Your task to perform on an android device: When is my next meeting? Image 0: 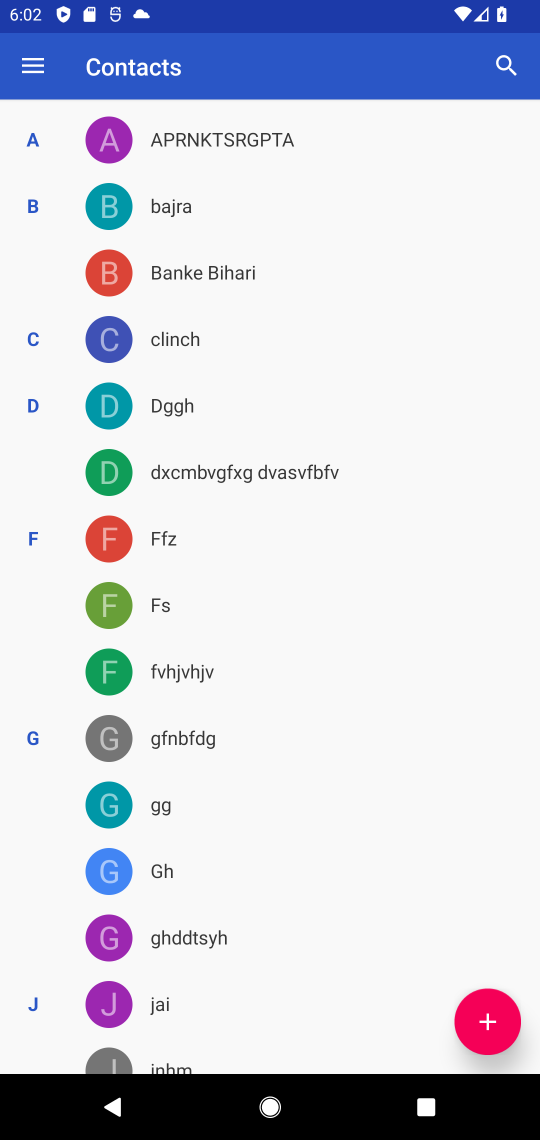
Step 0: press home button
Your task to perform on an android device: When is my next meeting? Image 1: 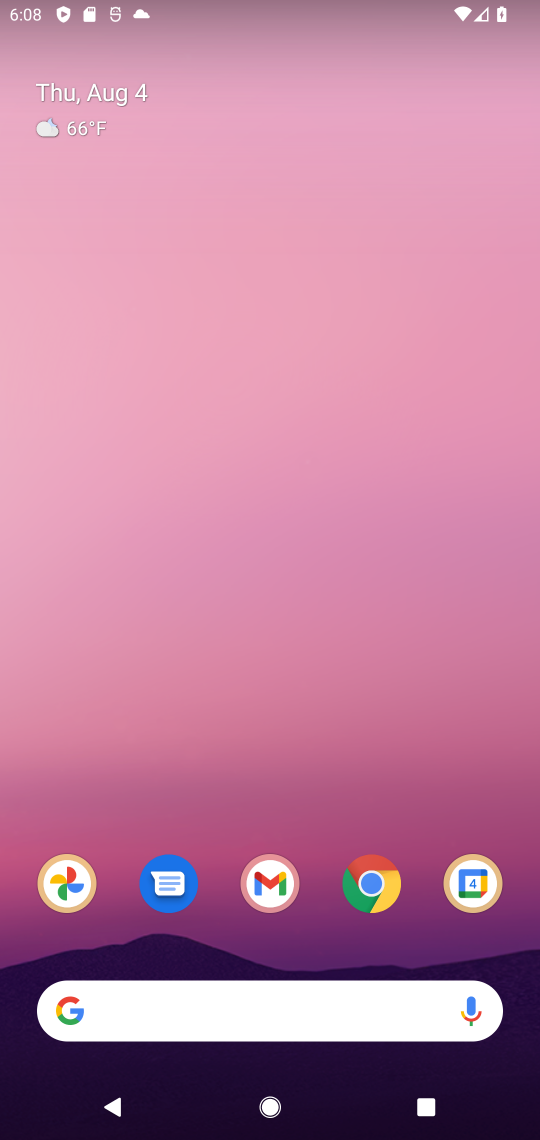
Step 1: drag from (166, 399) to (255, 105)
Your task to perform on an android device: When is my next meeting? Image 2: 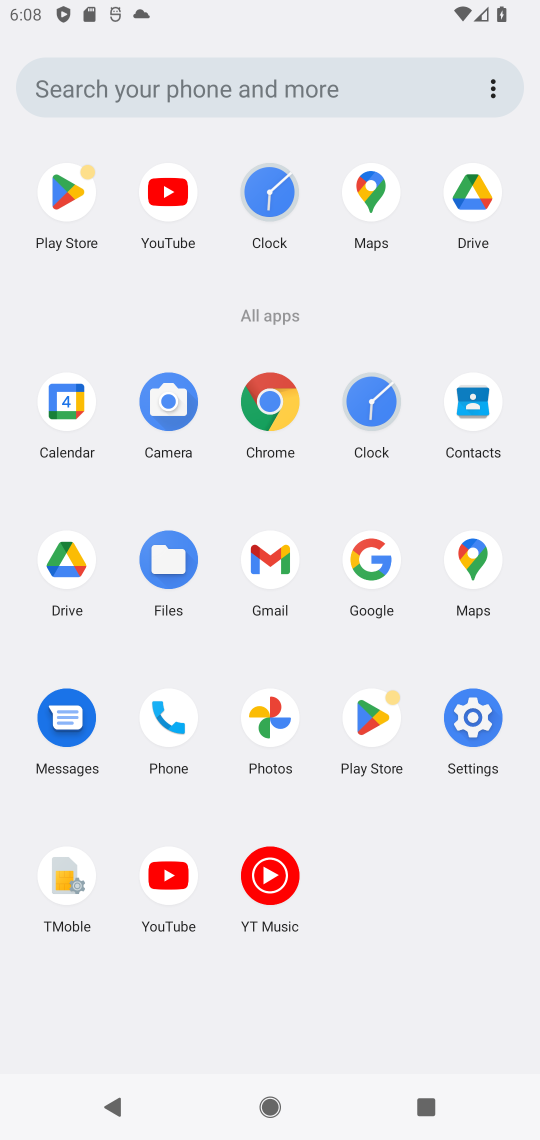
Step 2: click (55, 415)
Your task to perform on an android device: When is my next meeting? Image 3: 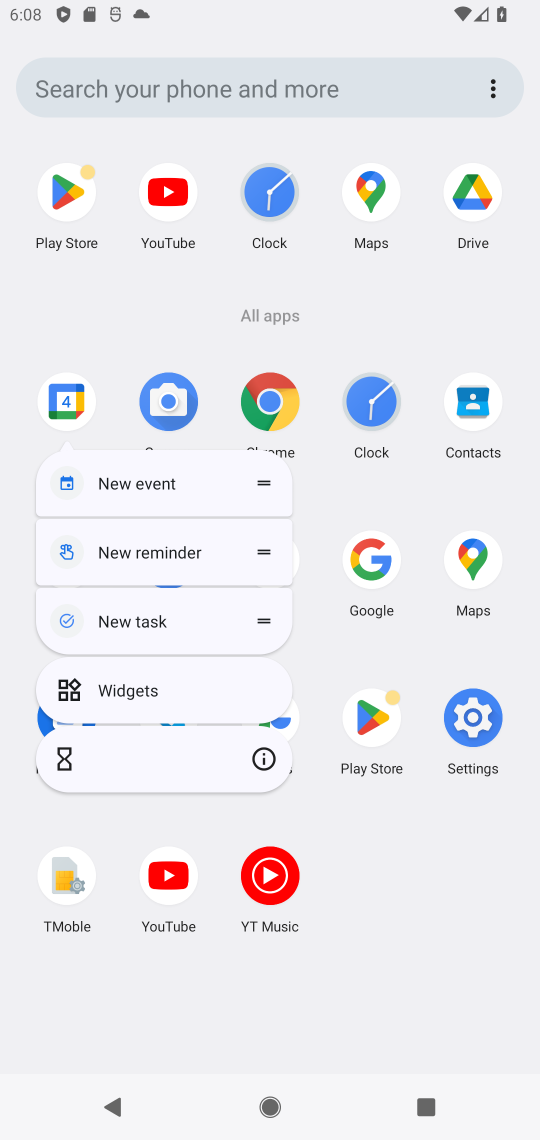
Step 3: click (55, 415)
Your task to perform on an android device: When is my next meeting? Image 4: 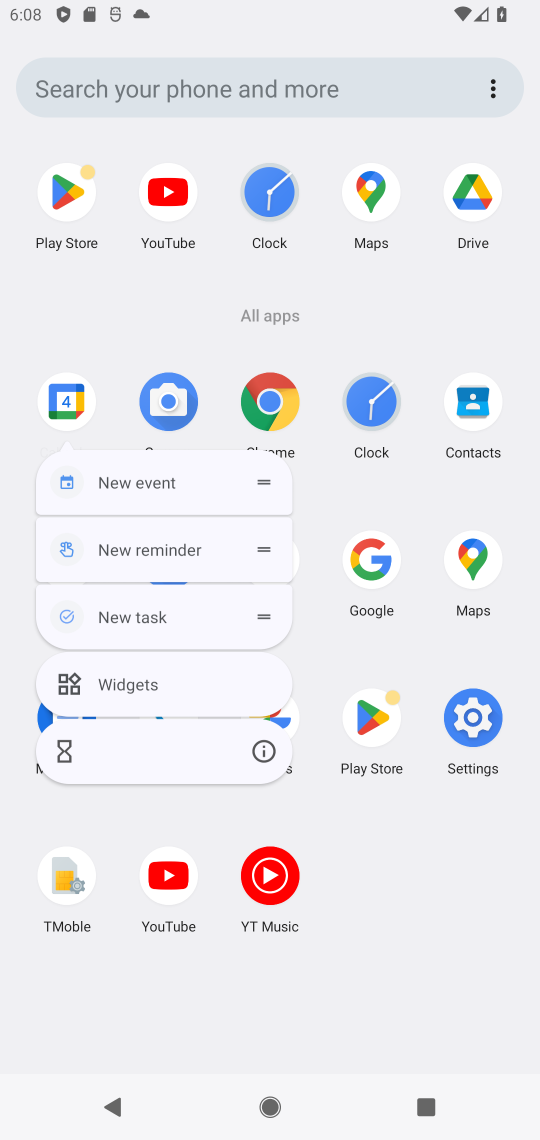
Step 4: click (55, 415)
Your task to perform on an android device: When is my next meeting? Image 5: 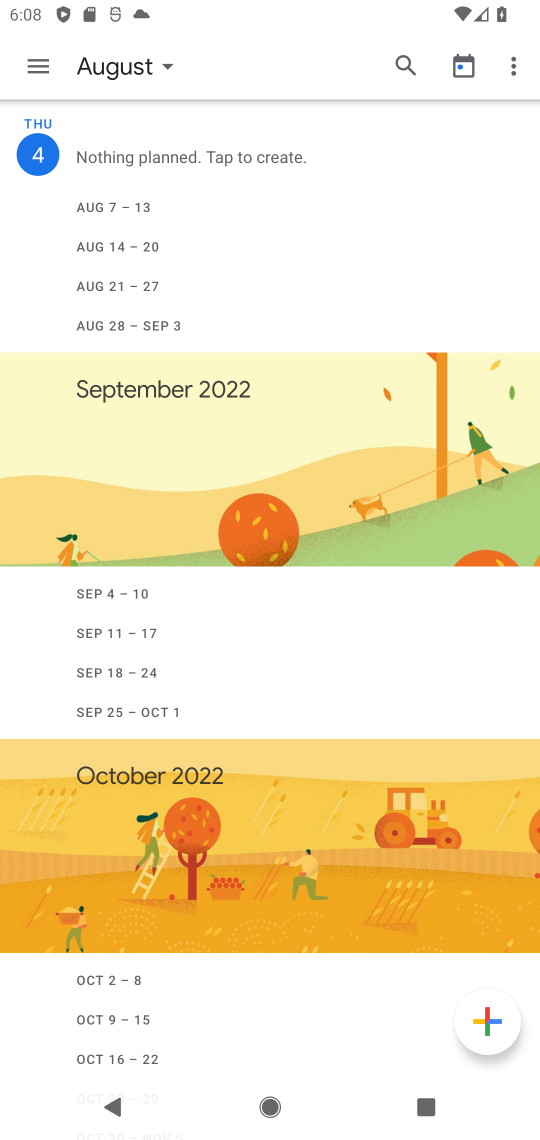
Step 5: click (44, 69)
Your task to perform on an android device: When is my next meeting? Image 6: 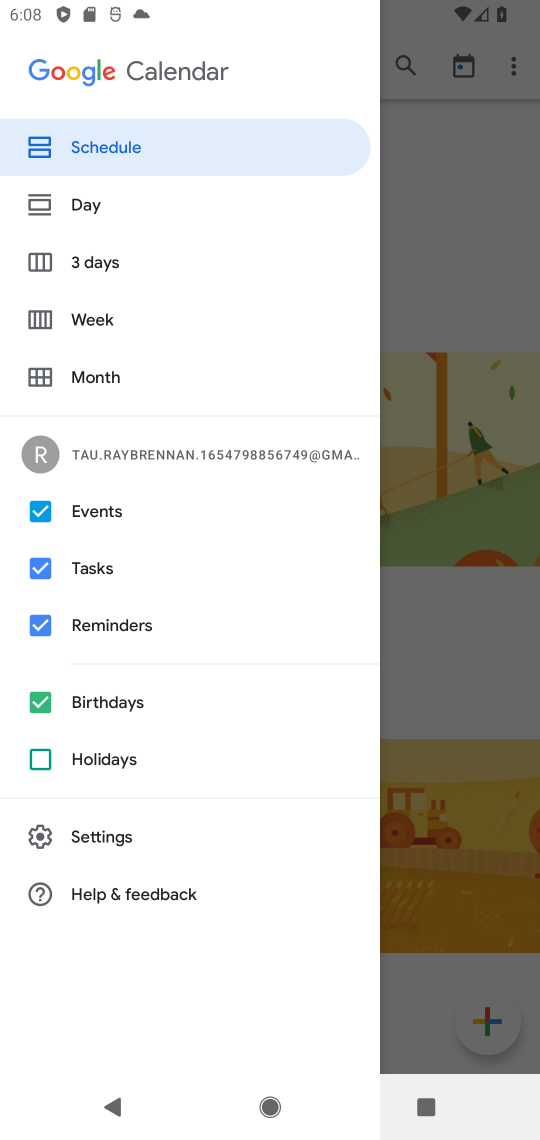
Step 6: click (105, 146)
Your task to perform on an android device: When is my next meeting? Image 7: 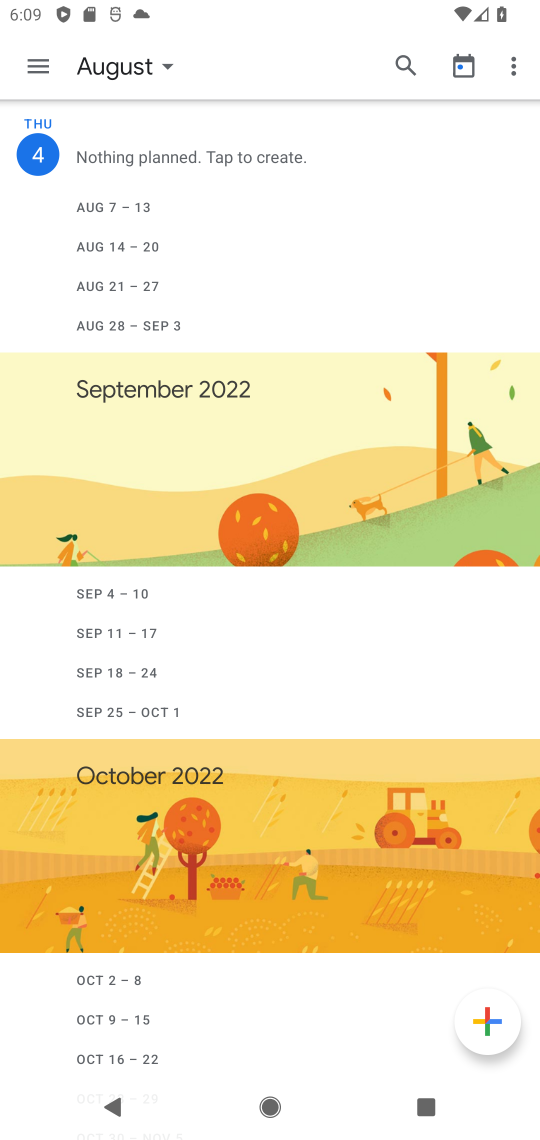
Step 7: task complete